Your task to perform on an android device: remove spam from my inbox in the gmail app Image 0: 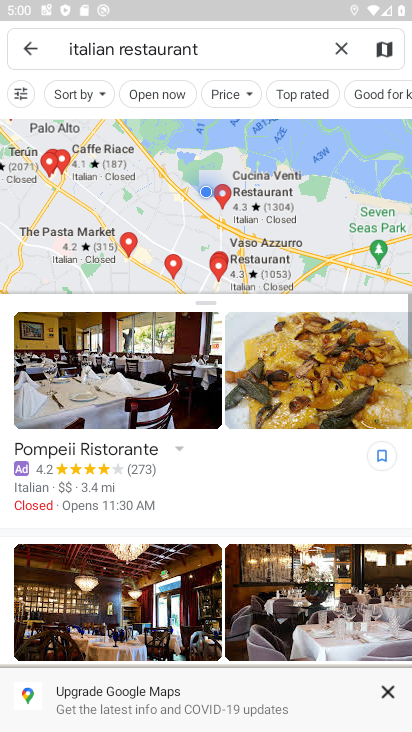
Step 0: press home button
Your task to perform on an android device: remove spam from my inbox in the gmail app Image 1: 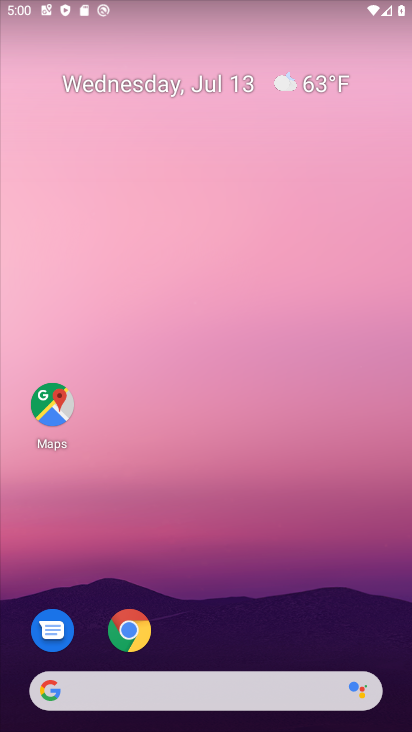
Step 1: drag from (246, 635) to (263, 44)
Your task to perform on an android device: remove spam from my inbox in the gmail app Image 2: 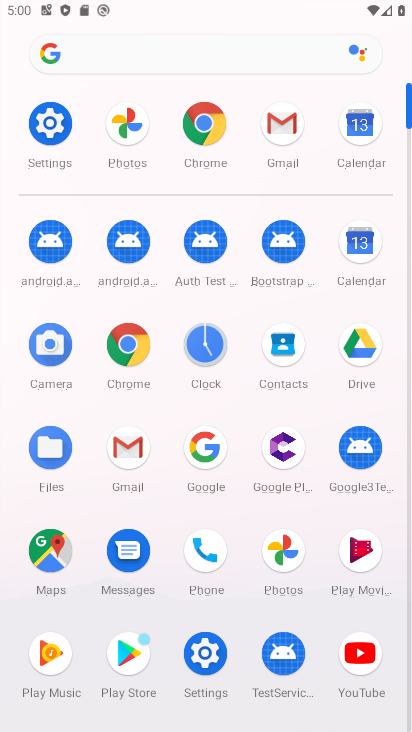
Step 2: click (279, 124)
Your task to perform on an android device: remove spam from my inbox in the gmail app Image 3: 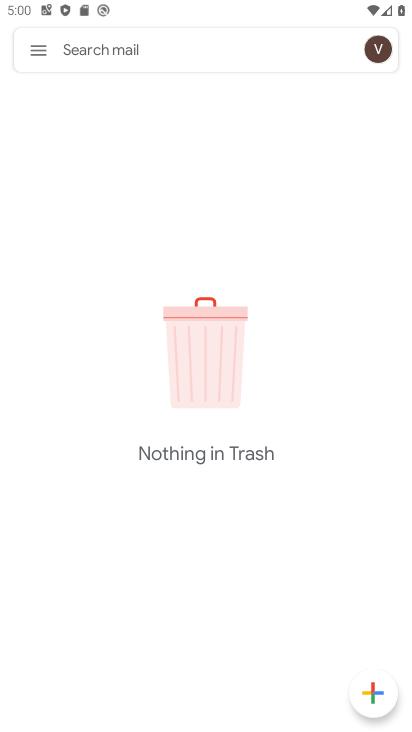
Step 3: click (38, 50)
Your task to perform on an android device: remove spam from my inbox in the gmail app Image 4: 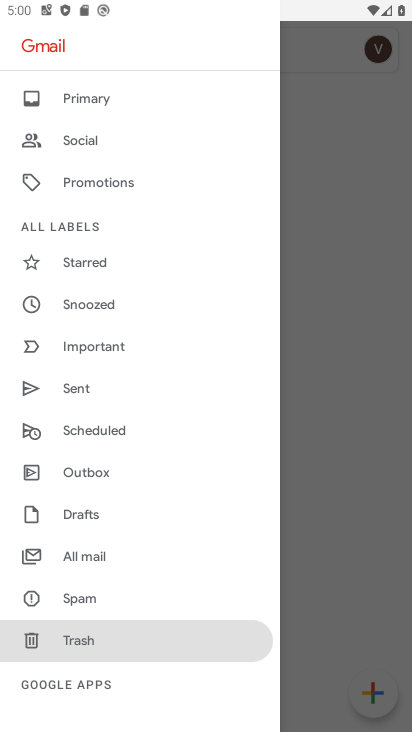
Step 4: click (82, 556)
Your task to perform on an android device: remove spam from my inbox in the gmail app Image 5: 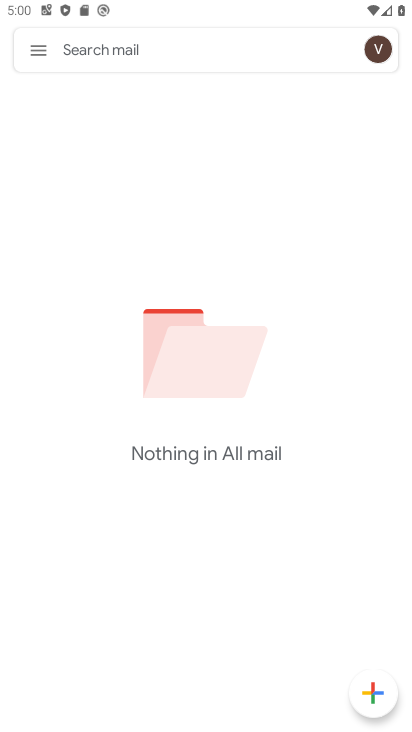
Step 5: task complete